Your task to perform on an android device: Go to Amazon Image 0: 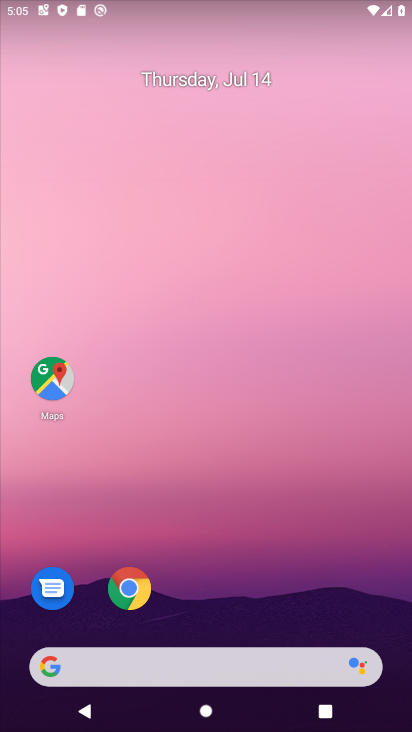
Step 0: drag from (194, 550) to (217, 388)
Your task to perform on an android device: Go to Amazon Image 1: 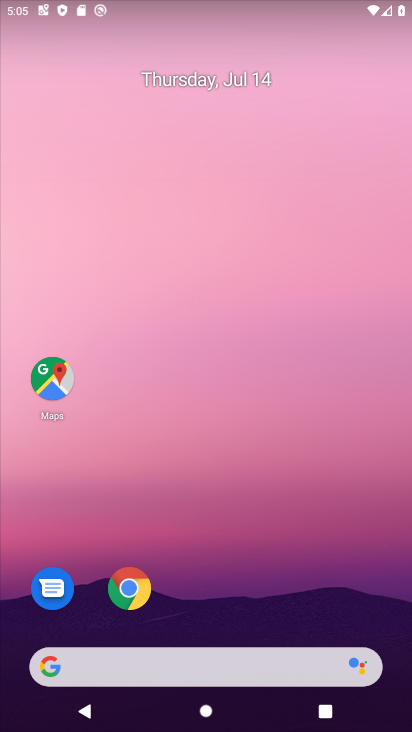
Step 1: drag from (206, 626) to (267, 201)
Your task to perform on an android device: Go to Amazon Image 2: 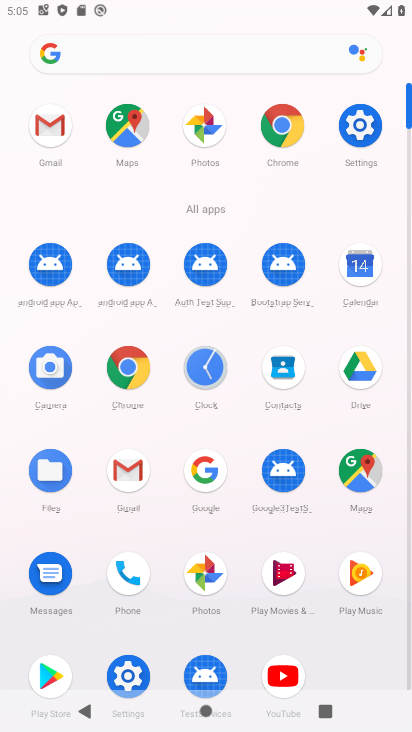
Step 2: click (292, 132)
Your task to perform on an android device: Go to Amazon Image 3: 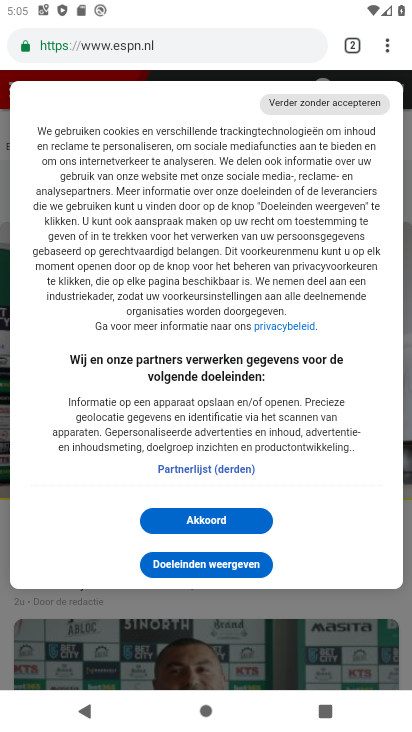
Step 3: click (355, 41)
Your task to perform on an android device: Go to Amazon Image 4: 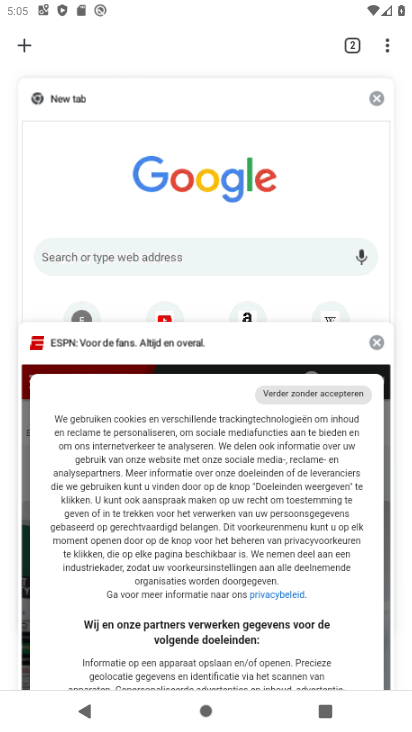
Step 4: click (375, 95)
Your task to perform on an android device: Go to Amazon Image 5: 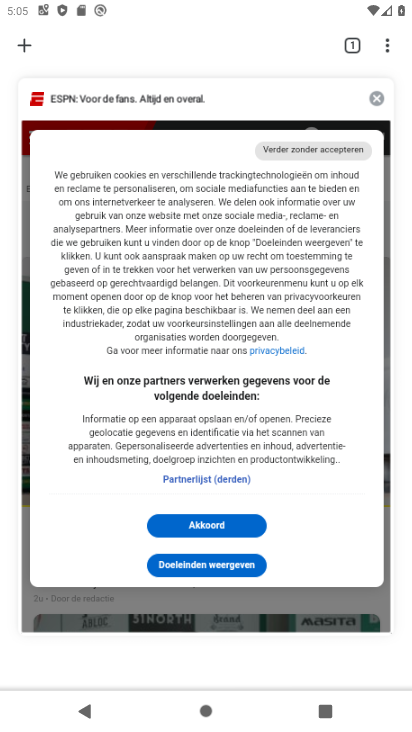
Step 5: click (374, 96)
Your task to perform on an android device: Go to Amazon Image 6: 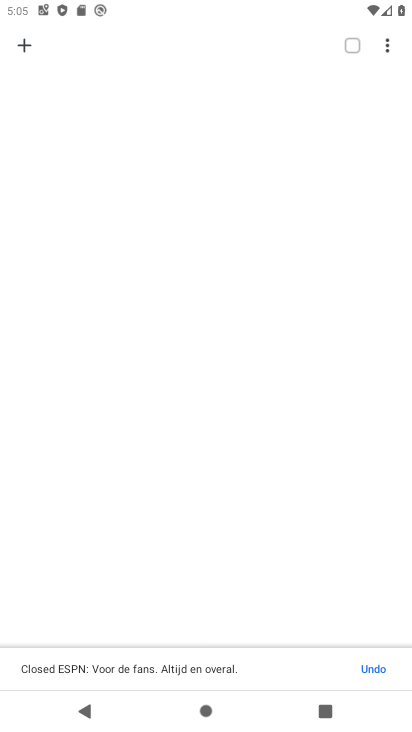
Step 6: click (22, 47)
Your task to perform on an android device: Go to Amazon Image 7: 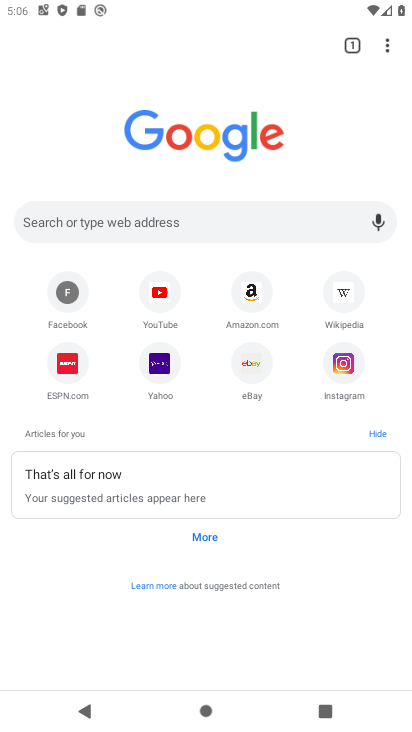
Step 7: click (250, 289)
Your task to perform on an android device: Go to Amazon Image 8: 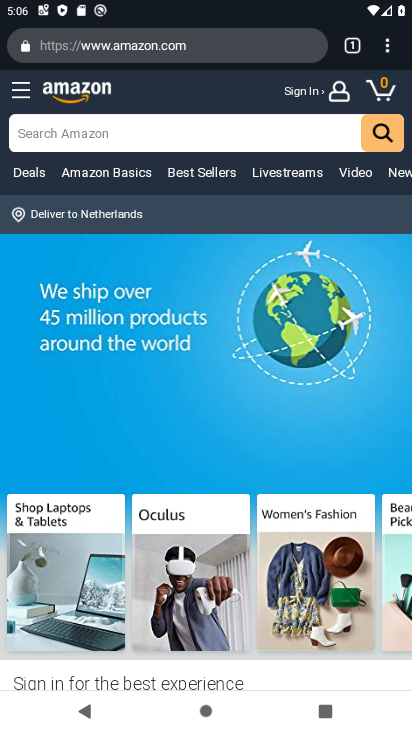
Step 8: task complete